Your task to perform on an android device: Is it going to rain tomorrow? Image 0: 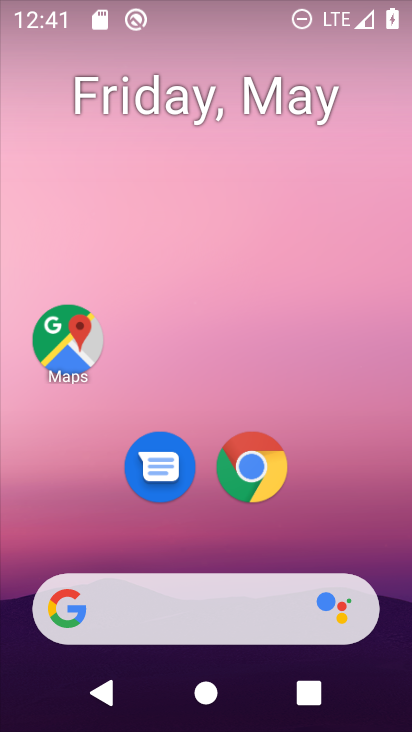
Step 0: drag from (133, 600) to (218, 30)
Your task to perform on an android device: Is it going to rain tomorrow? Image 1: 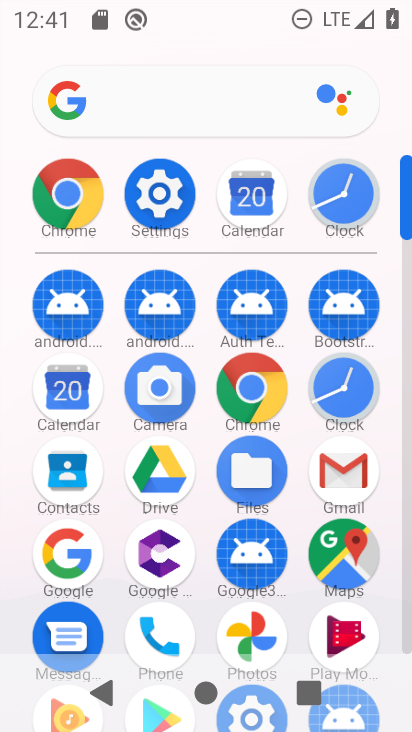
Step 1: press home button
Your task to perform on an android device: Is it going to rain tomorrow? Image 2: 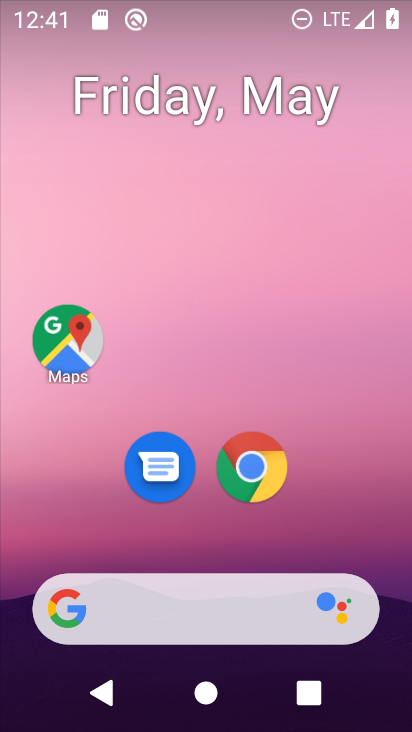
Step 2: drag from (79, 208) to (405, 222)
Your task to perform on an android device: Is it going to rain tomorrow? Image 3: 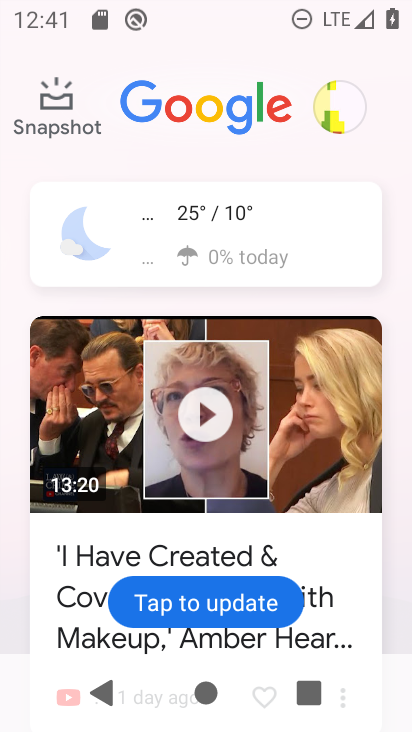
Step 3: click (230, 230)
Your task to perform on an android device: Is it going to rain tomorrow? Image 4: 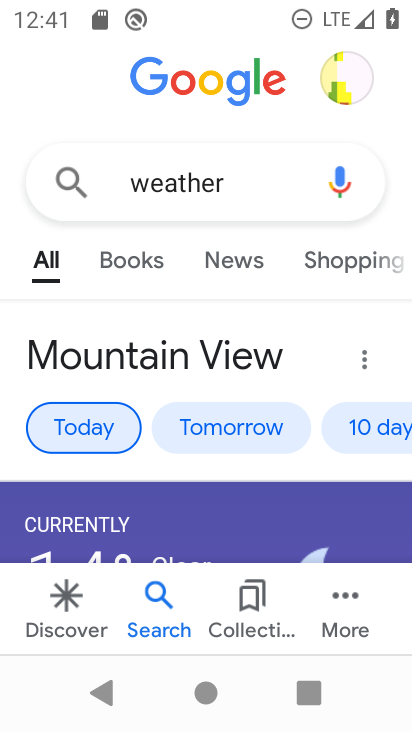
Step 4: click (217, 435)
Your task to perform on an android device: Is it going to rain tomorrow? Image 5: 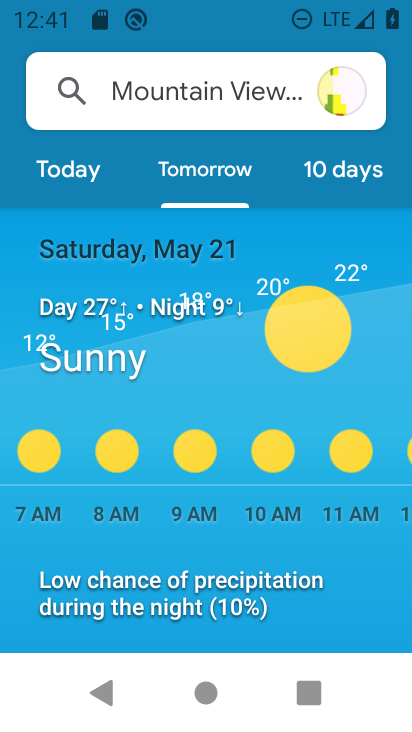
Step 5: task complete